Your task to perform on an android device: Open CNN.com Image 0: 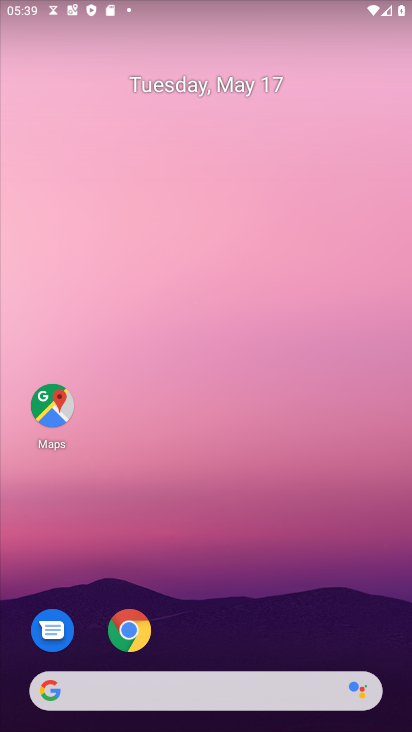
Step 0: click (120, 643)
Your task to perform on an android device: Open CNN.com Image 1: 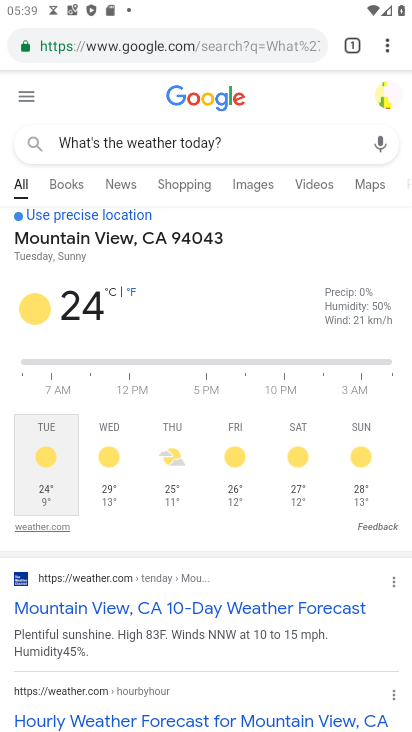
Step 1: click (295, 38)
Your task to perform on an android device: Open CNN.com Image 2: 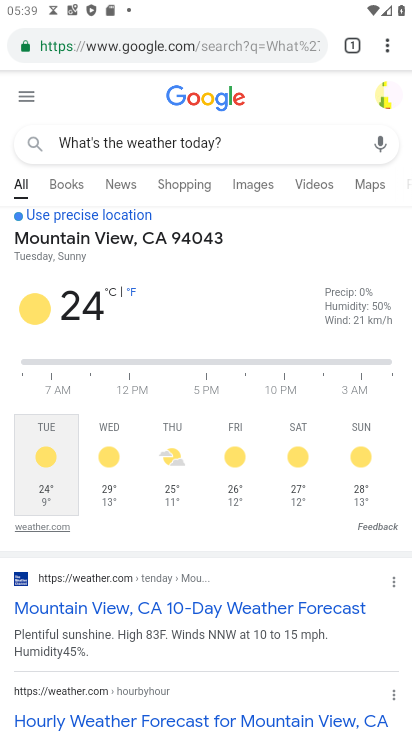
Step 2: click (295, 38)
Your task to perform on an android device: Open CNN.com Image 3: 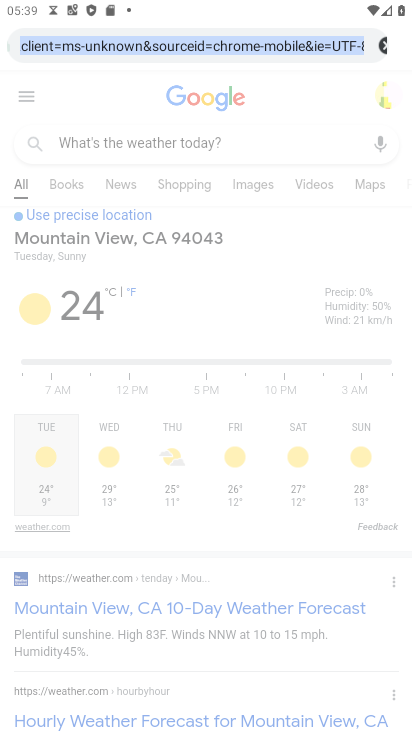
Step 3: click (295, 38)
Your task to perform on an android device: Open CNN.com Image 4: 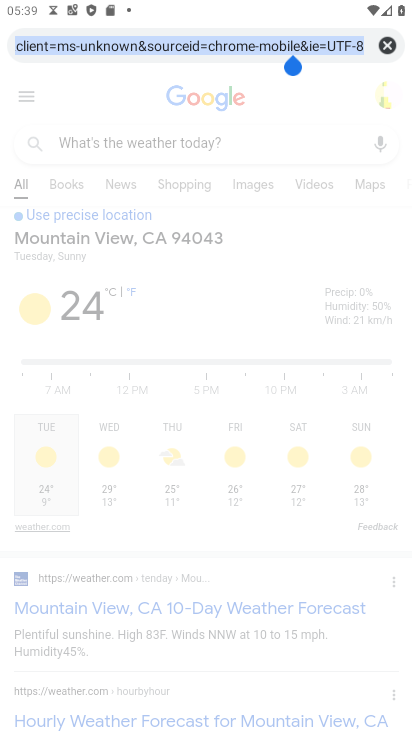
Step 4: click (295, 38)
Your task to perform on an android device: Open CNN.com Image 5: 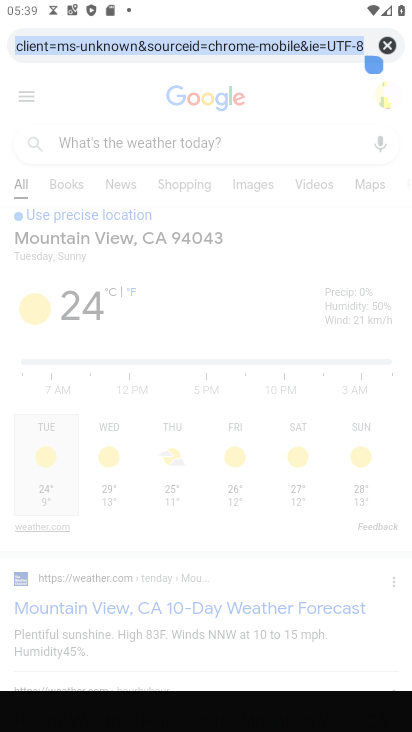
Step 5: click (295, 38)
Your task to perform on an android device: Open CNN.com Image 6: 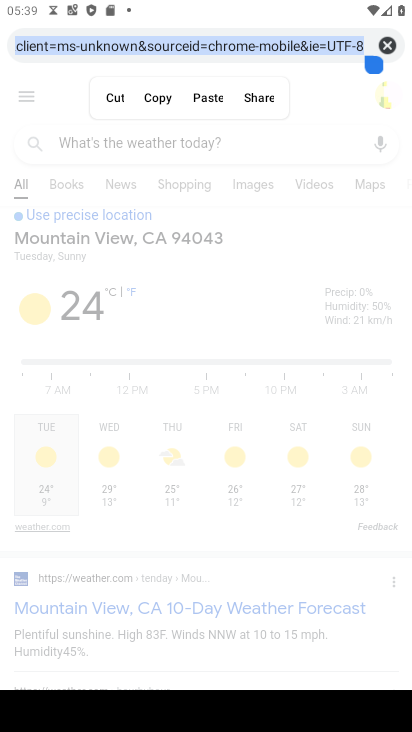
Step 6: click (295, 38)
Your task to perform on an android device: Open CNN.com Image 7: 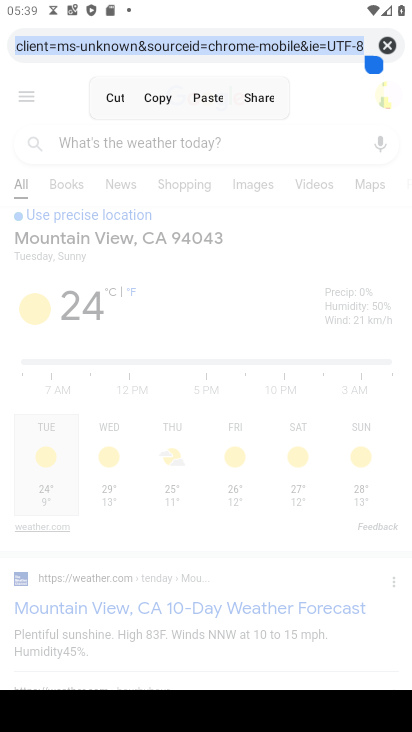
Step 7: click (295, 38)
Your task to perform on an android device: Open CNN.com Image 8: 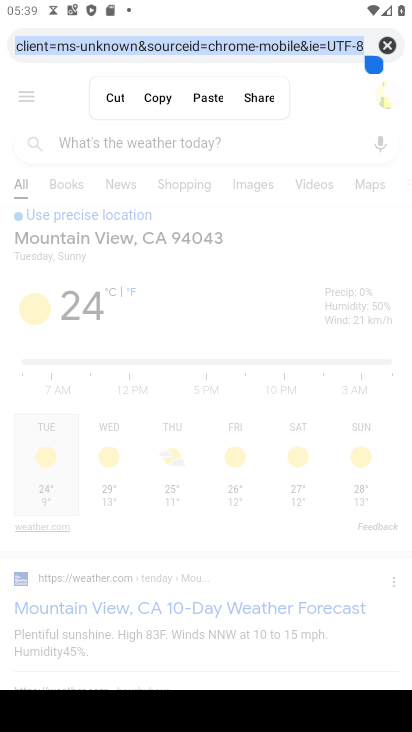
Step 8: click (110, 103)
Your task to perform on an android device: Open CNN.com Image 9: 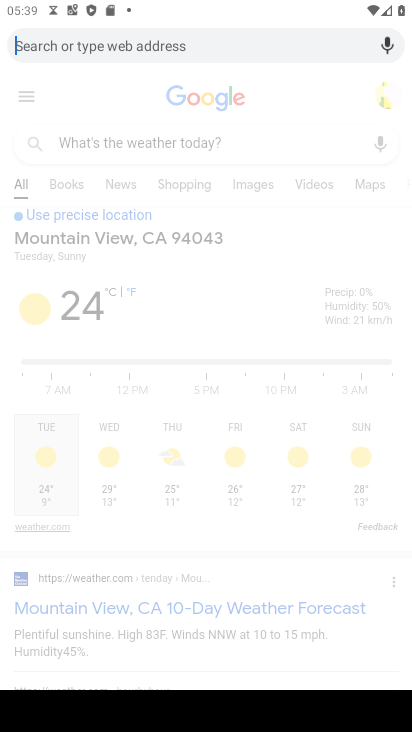
Step 9: type "CNN.com"
Your task to perform on an android device: Open CNN.com Image 10: 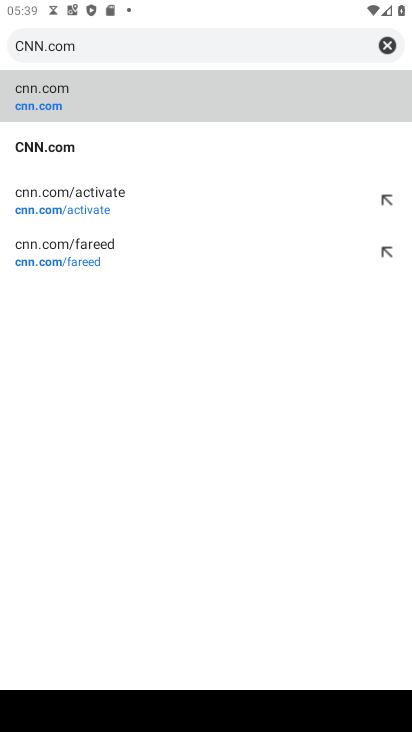
Step 10: click (302, 90)
Your task to perform on an android device: Open CNN.com Image 11: 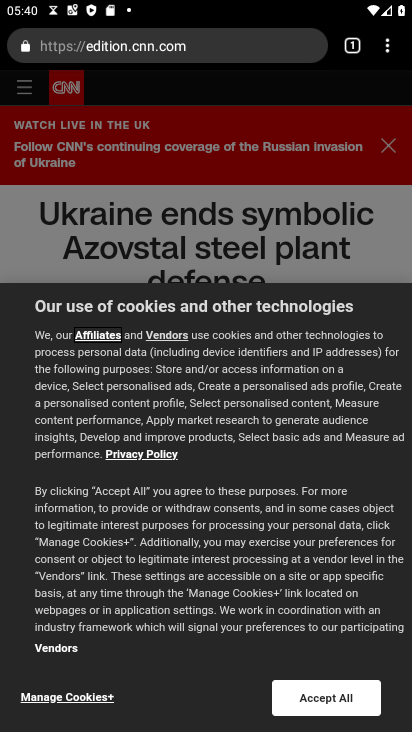
Step 11: task complete